Your task to perform on an android device: turn off picture-in-picture Image 0: 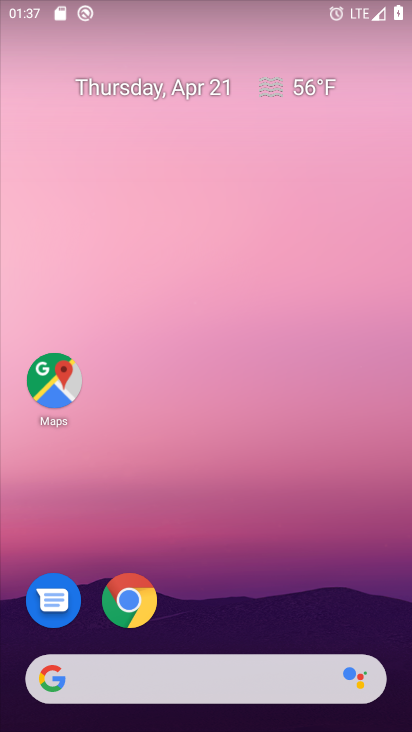
Step 0: click (139, 588)
Your task to perform on an android device: turn off picture-in-picture Image 1: 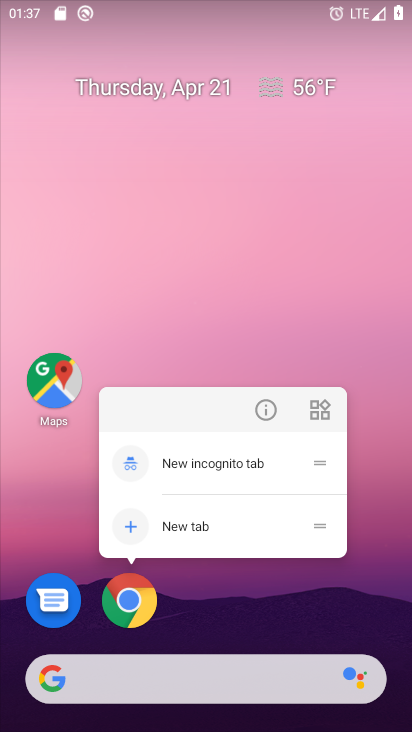
Step 1: click (263, 411)
Your task to perform on an android device: turn off picture-in-picture Image 2: 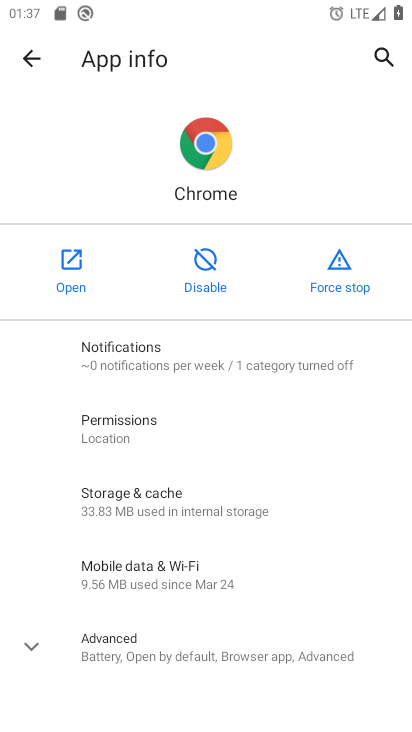
Step 2: drag from (288, 602) to (332, 399)
Your task to perform on an android device: turn off picture-in-picture Image 3: 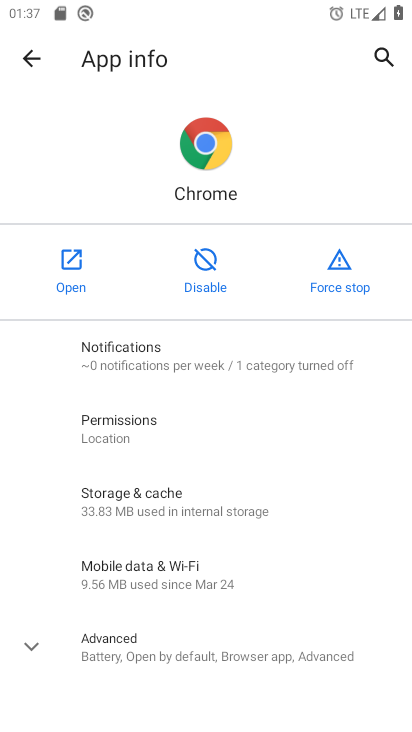
Step 3: click (24, 632)
Your task to perform on an android device: turn off picture-in-picture Image 4: 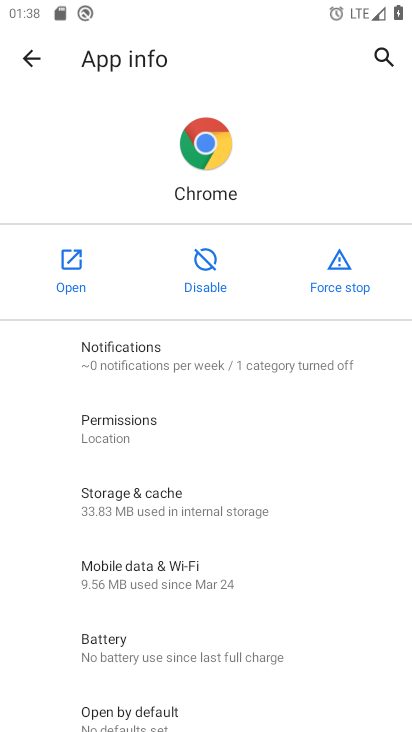
Step 4: drag from (236, 670) to (320, 129)
Your task to perform on an android device: turn off picture-in-picture Image 5: 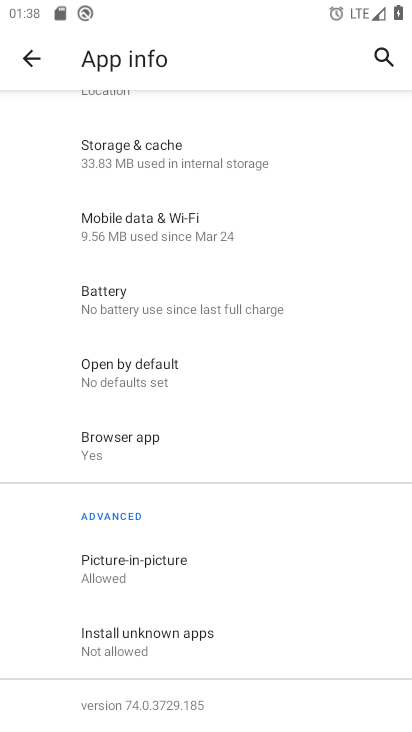
Step 5: click (197, 575)
Your task to perform on an android device: turn off picture-in-picture Image 6: 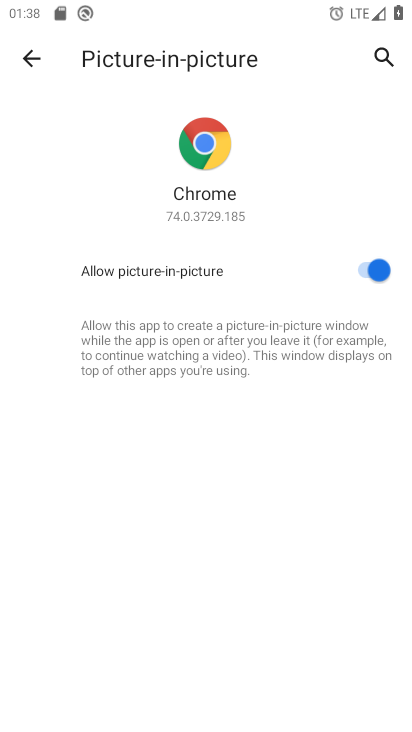
Step 6: click (362, 266)
Your task to perform on an android device: turn off picture-in-picture Image 7: 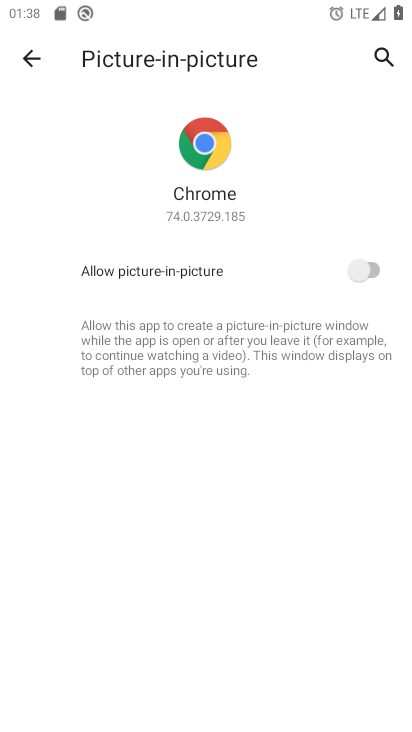
Step 7: task complete